Your task to perform on an android device: turn notification dots on Image 0: 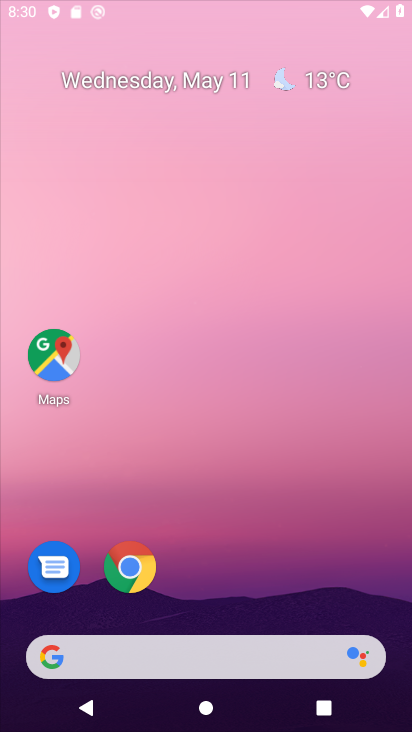
Step 0: click (330, 2)
Your task to perform on an android device: turn notification dots on Image 1: 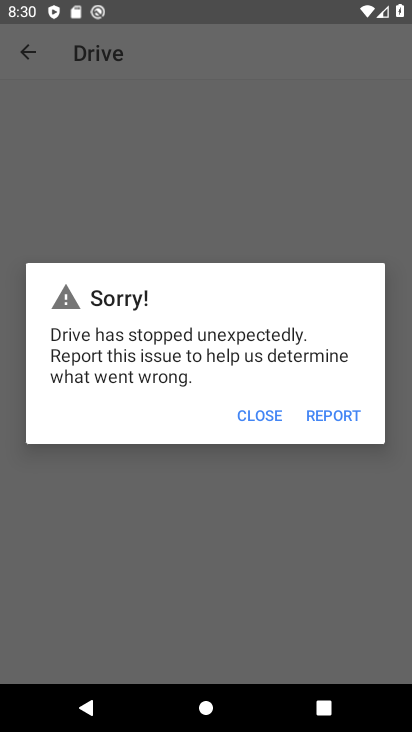
Step 1: press home button
Your task to perform on an android device: turn notification dots on Image 2: 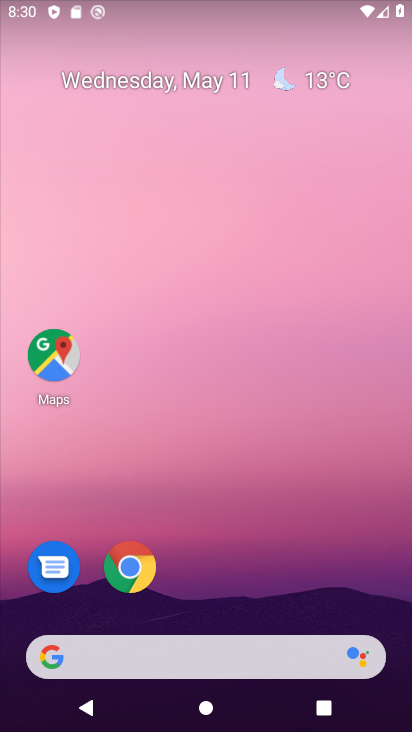
Step 2: drag from (239, 602) to (240, 12)
Your task to perform on an android device: turn notification dots on Image 3: 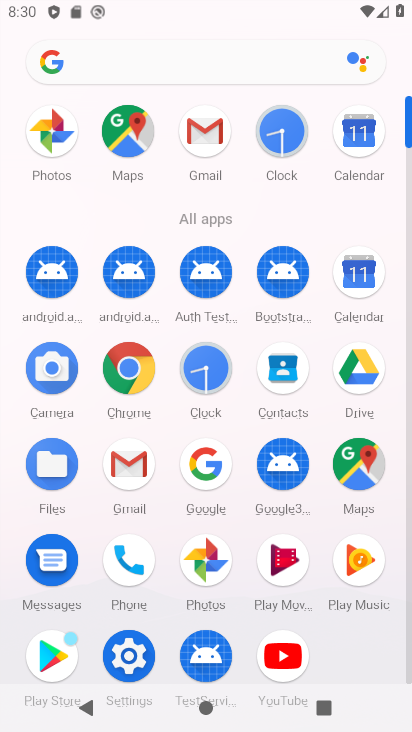
Step 3: click (124, 650)
Your task to perform on an android device: turn notification dots on Image 4: 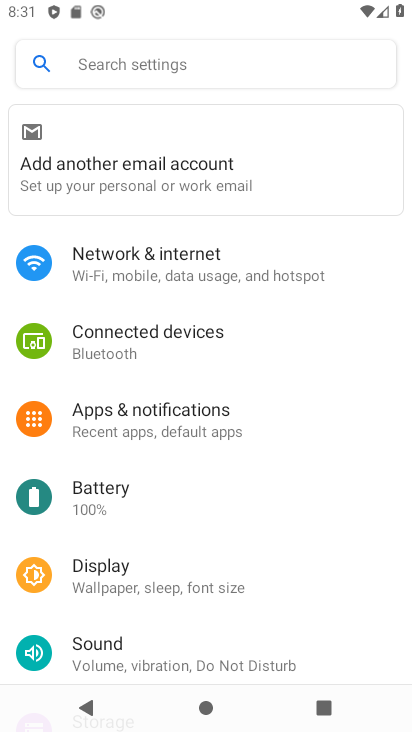
Step 4: click (158, 433)
Your task to perform on an android device: turn notification dots on Image 5: 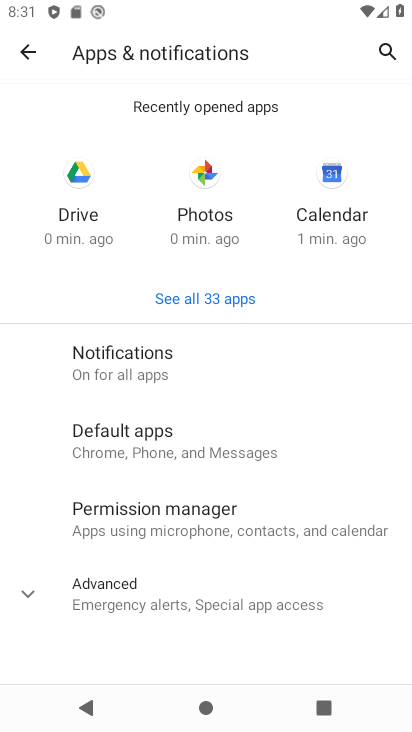
Step 5: click (158, 433)
Your task to perform on an android device: turn notification dots on Image 6: 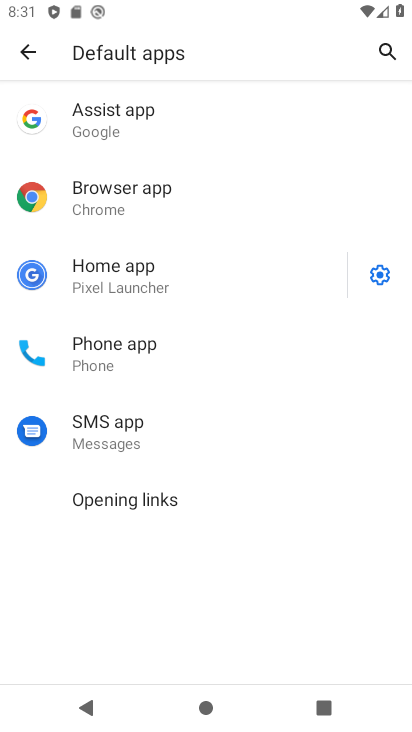
Step 6: drag from (32, 60) to (3, 123)
Your task to perform on an android device: turn notification dots on Image 7: 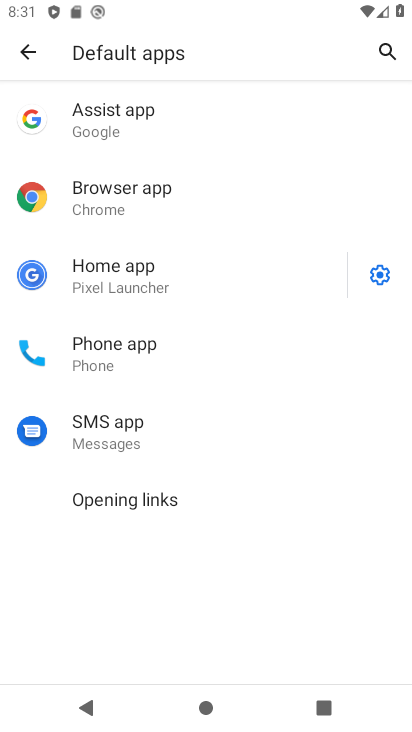
Step 7: click (27, 54)
Your task to perform on an android device: turn notification dots on Image 8: 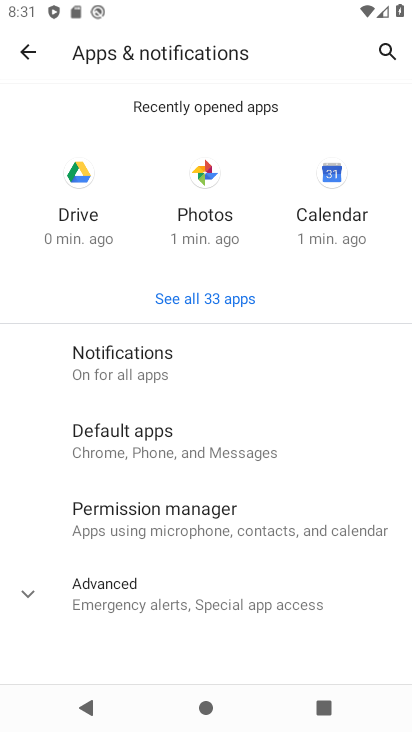
Step 8: click (172, 364)
Your task to perform on an android device: turn notification dots on Image 9: 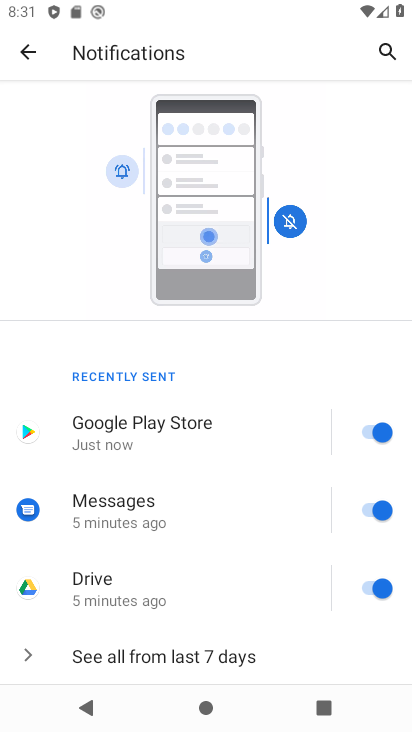
Step 9: drag from (230, 641) to (300, 175)
Your task to perform on an android device: turn notification dots on Image 10: 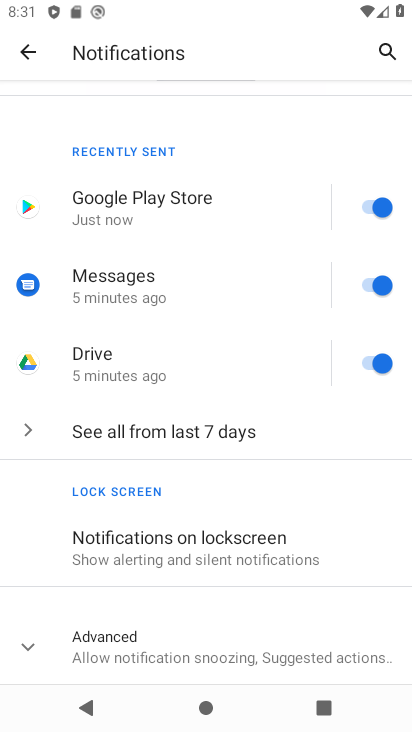
Step 10: click (179, 659)
Your task to perform on an android device: turn notification dots on Image 11: 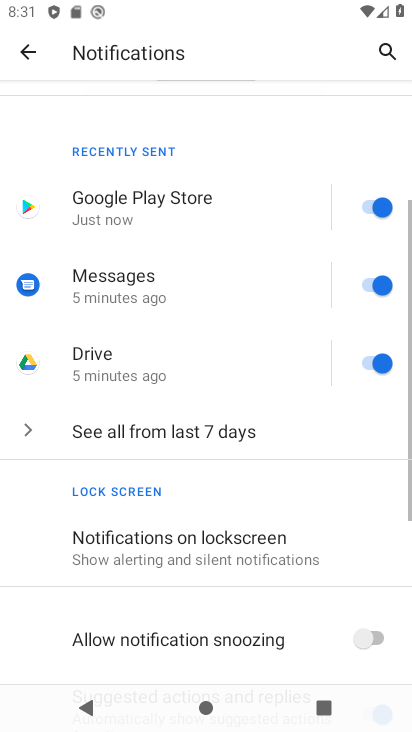
Step 11: task complete